Your task to perform on an android device: Open CNN.com Image 0: 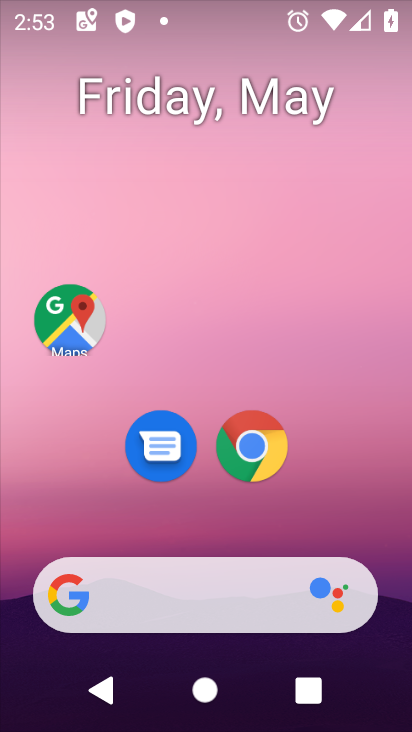
Step 0: click (261, 447)
Your task to perform on an android device: Open CNN.com Image 1: 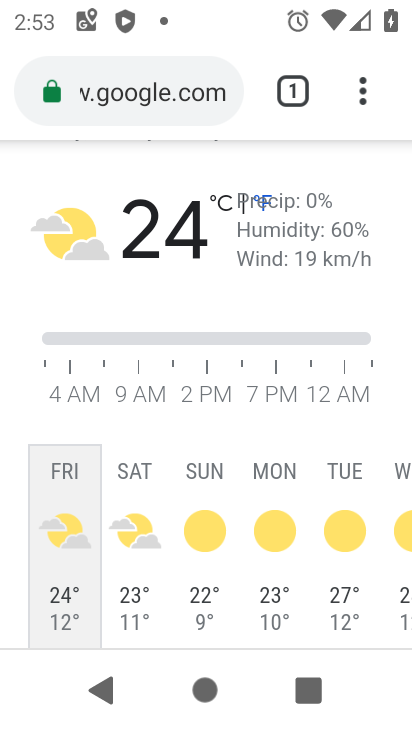
Step 1: click (190, 76)
Your task to perform on an android device: Open CNN.com Image 2: 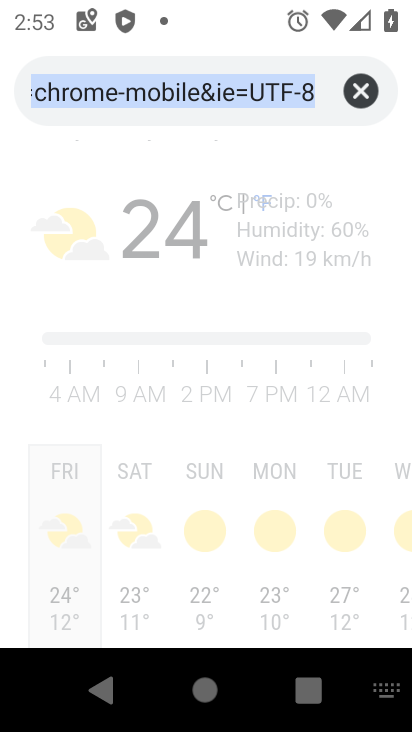
Step 2: type "cnn.com"
Your task to perform on an android device: Open CNN.com Image 3: 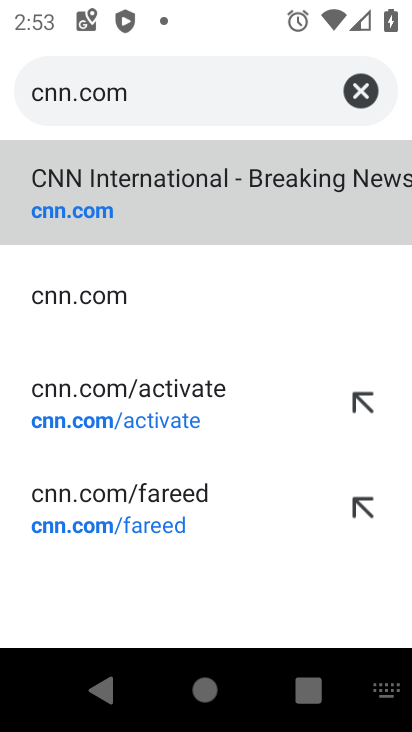
Step 3: click (72, 211)
Your task to perform on an android device: Open CNN.com Image 4: 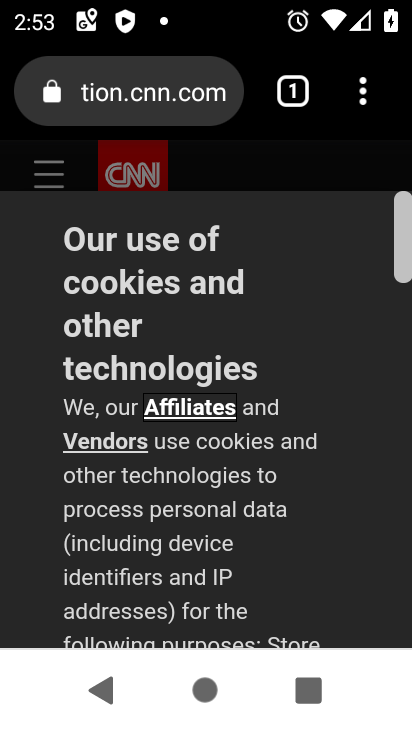
Step 4: task complete